Your task to perform on an android device: check storage Image 0: 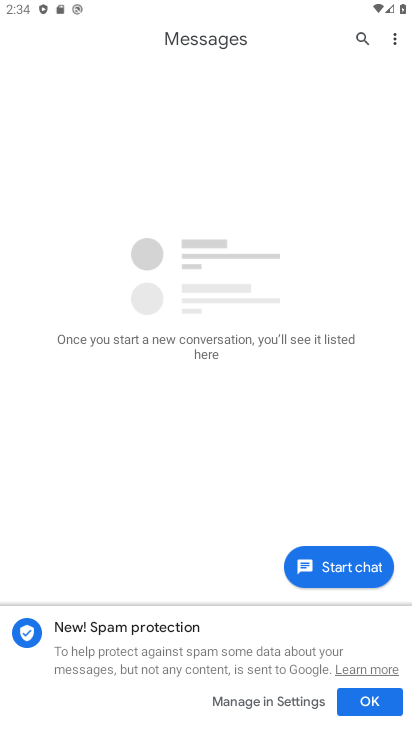
Step 0: press home button
Your task to perform on an android device: check storage Image 1: 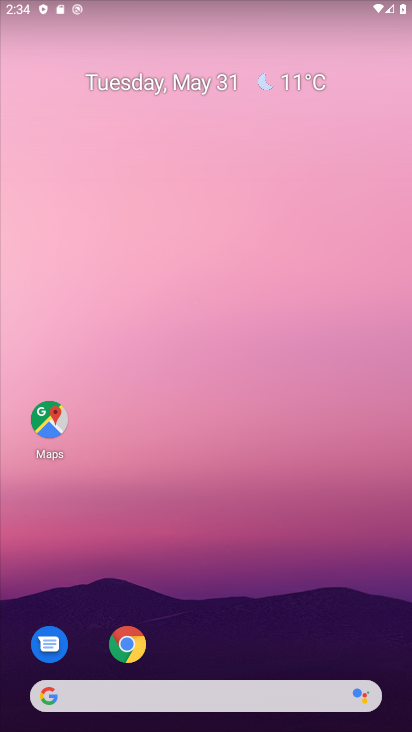
Step 1: drag from (228, 628) to (228, 50)
Your task to perform on an android device: check storage Image 2: 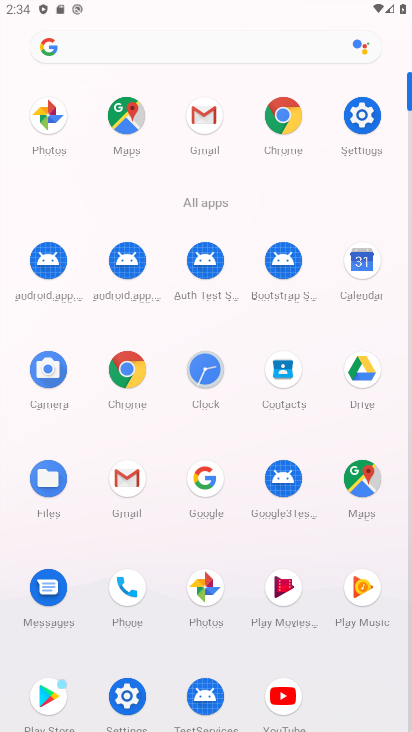
Step 2: click (368, 114)
Your task to perform on an android device: check storage Image 3: 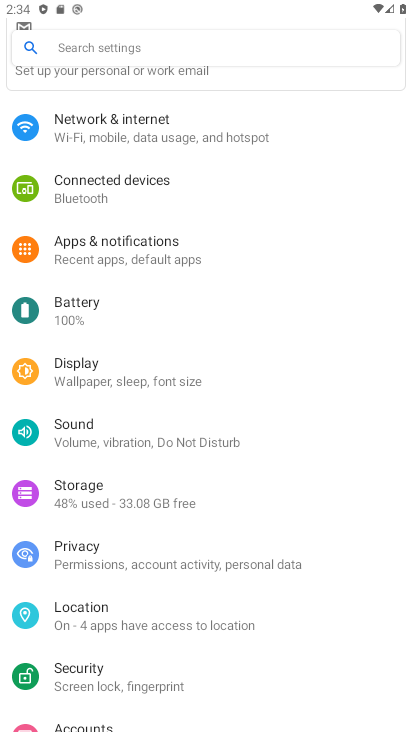
Step 3: click (165, 505)
Your task to perform on an android device: check storage Image 4: 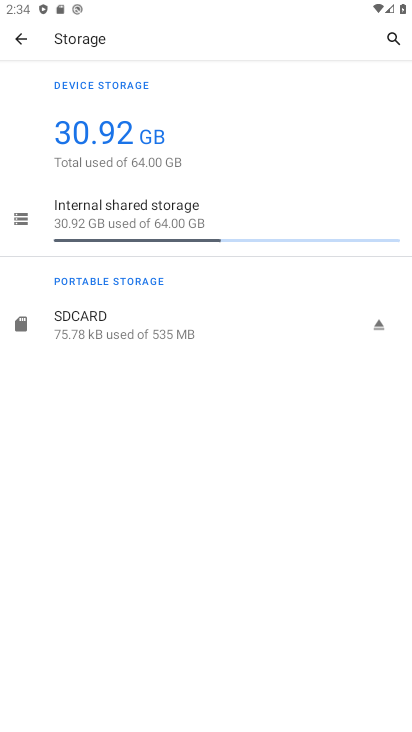
Step 4: task complete